Your task to perform on an android device: check storage Image 0: 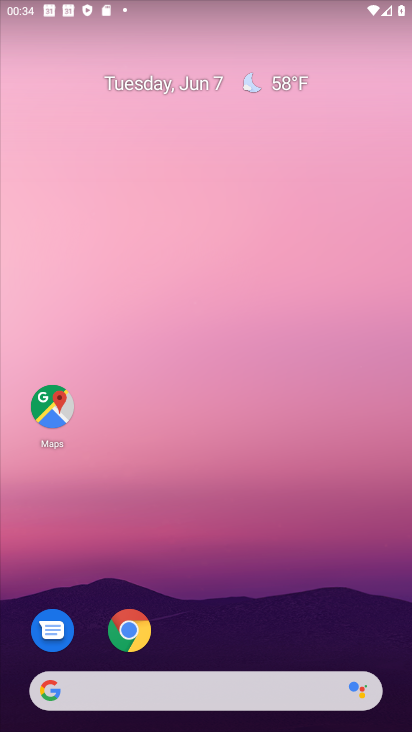
Step 0: drag from (253, 568) to (252, 94)
Your task to perform on an android device: check storage Image 1: 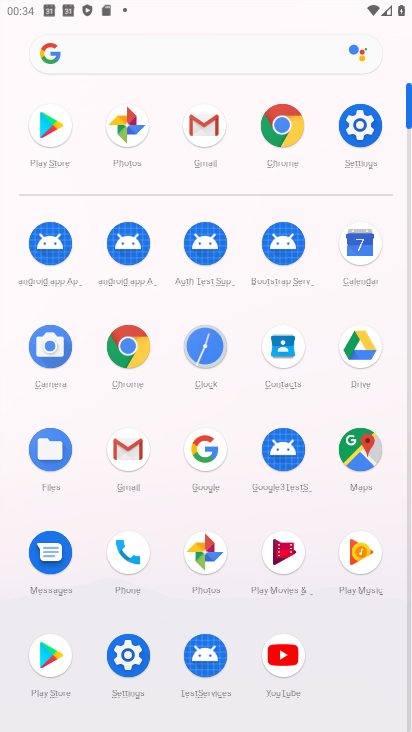
Step 1: click (138, 646)
Your task to perform on an android device: check storage Image 2: 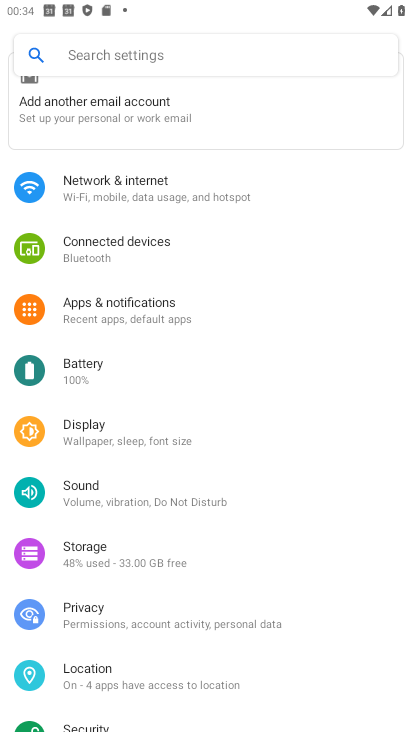
Step 2: click (132, 556)
Your task to perform on an android device: check storage Image 3: 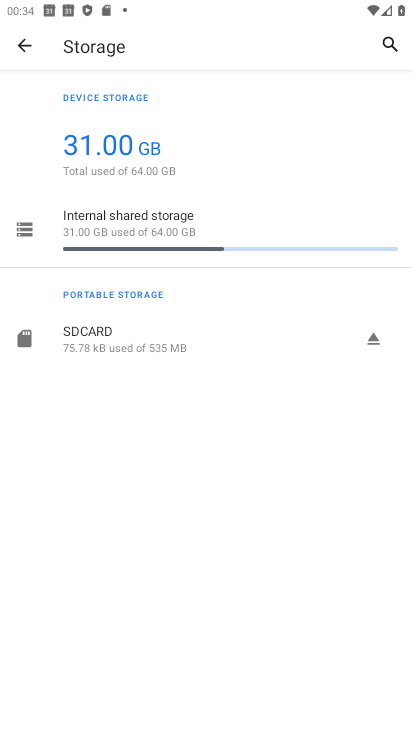
Step 3: click (25, 228)
Your task to perform on an android device: check storage Image 4: 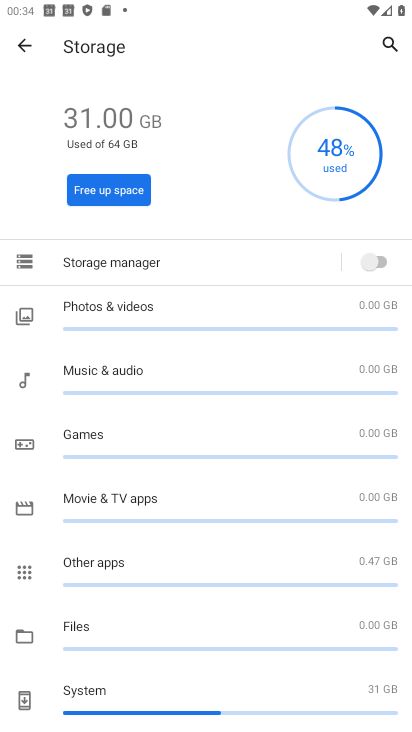
Step 4: task complete